Your task to perform on an android device: Go to Amazon Image 0: 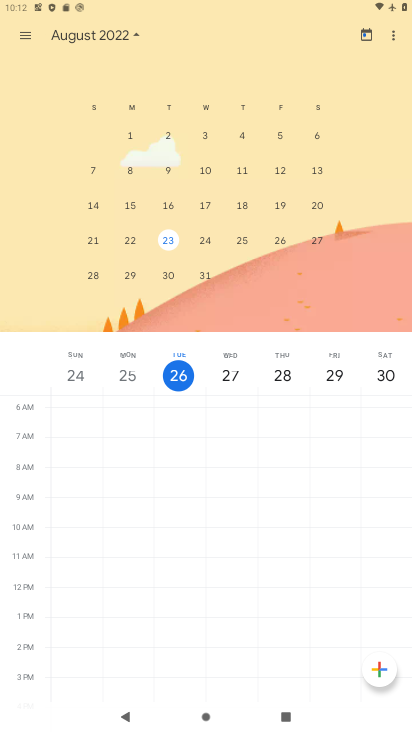
Step 0: press home button
Your task to perform on an android device: Go to Amazon Image 1: 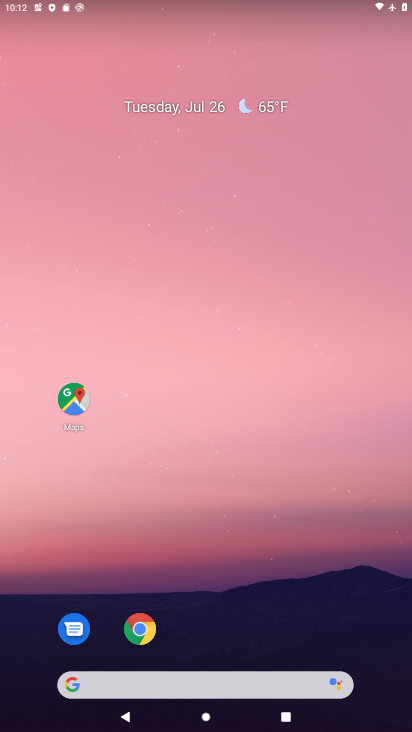
Step 1: drag from (272, 540) to (209, 66)
Your task to perform on an android device: Go to Amazon Image 2: 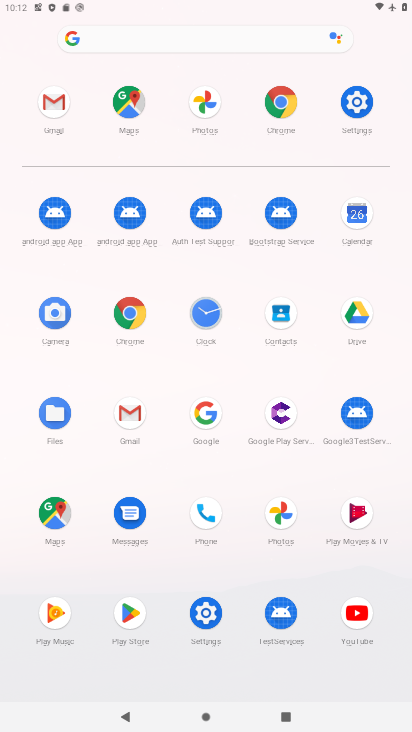
Step 2: click (286, 99)
Your task to perform on an android device: Go to Amazon Image 3: 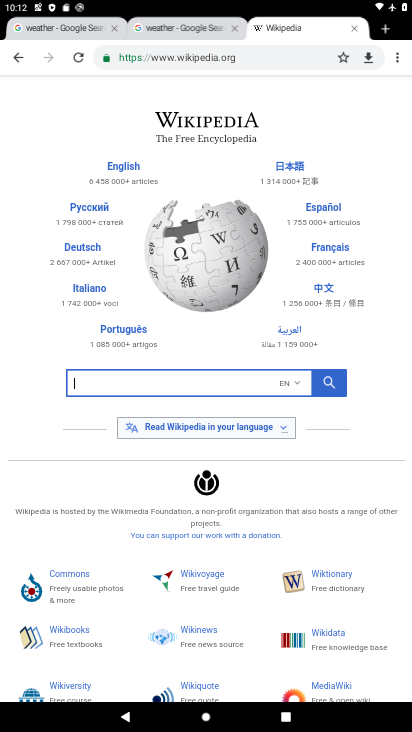
Step 3: click (263, 57)
Your task to perform on an android device: Go to Amazon Image 4: 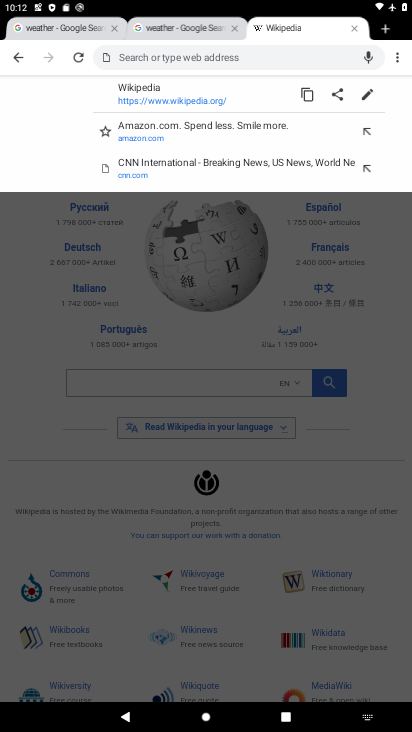
Step 4: type "aamazon"
Your task to perform on an android device: Go to Amazon Image 5: 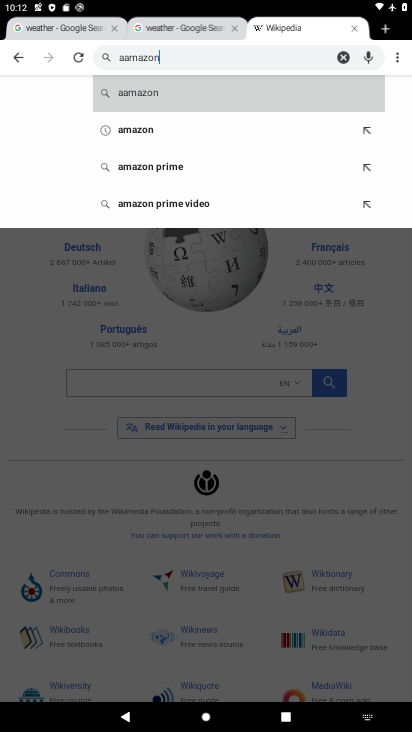
Step 5: click (133, 90)
Your task to perform on an android device: Go to Amazon Image 6: 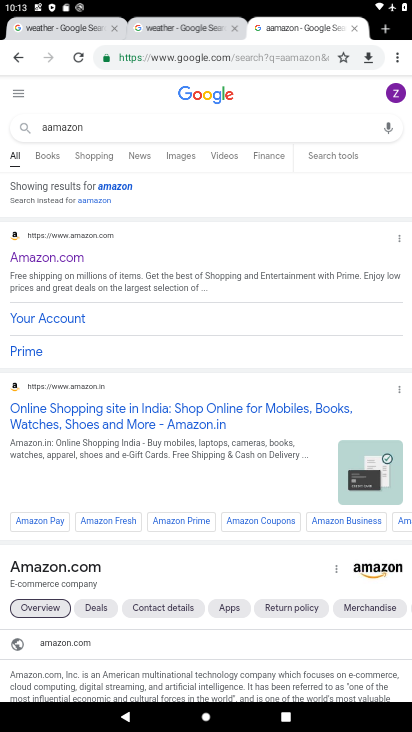
Step 6: click (40, 261)
Your task to perform on an android device: Go to Amazon Image 7: 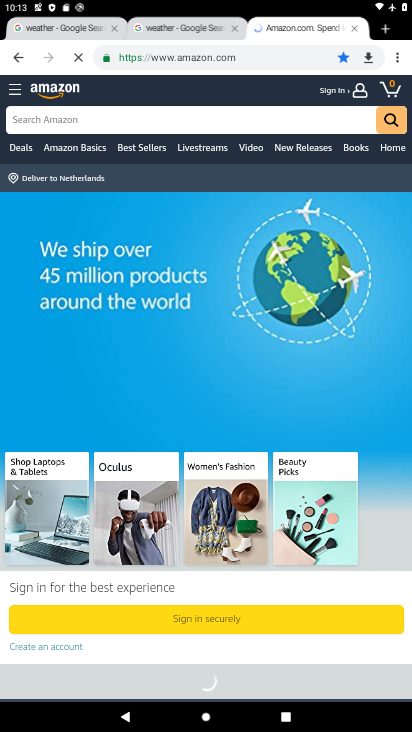
Step 7: task complete